Your task to perform on an android device: Go to battery settings Image 0: 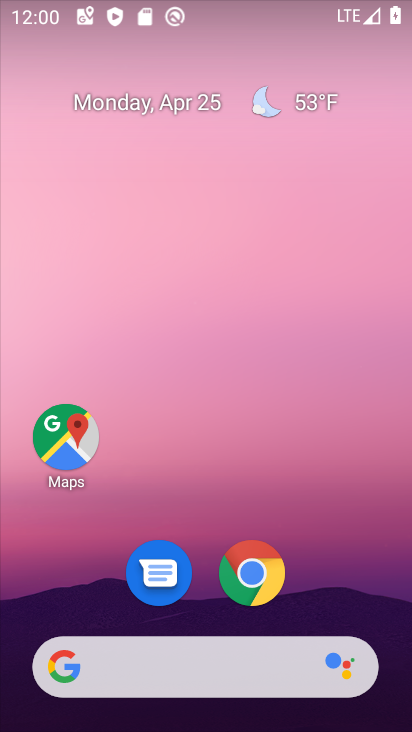
Step 0: drag from (339, 555) to (293, 5)
Your task to perform on an android device: Go to battery settings Image 1: 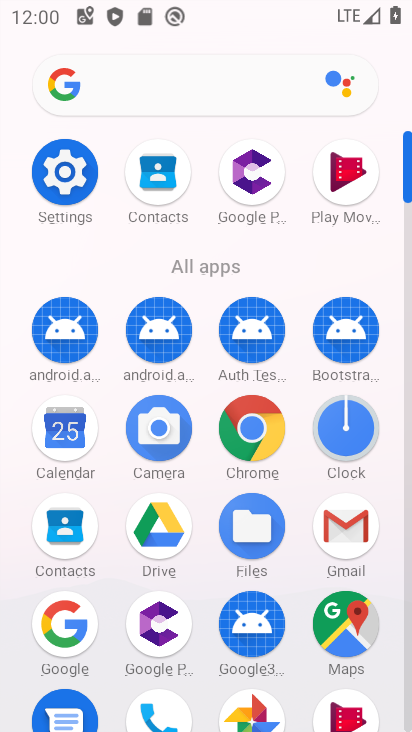
Step 1: click (49, 245)
Your task to perform on an android device: Go to battery settings Image 2: 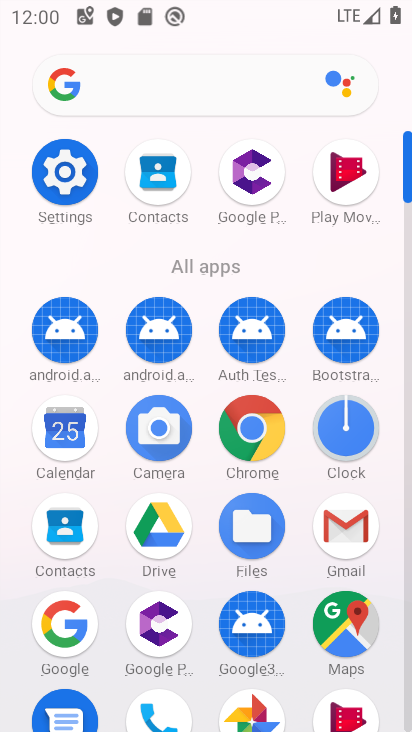
Step 2: click (50, 202)
Your task to perform on an android device: Go to battery settings Image 3: 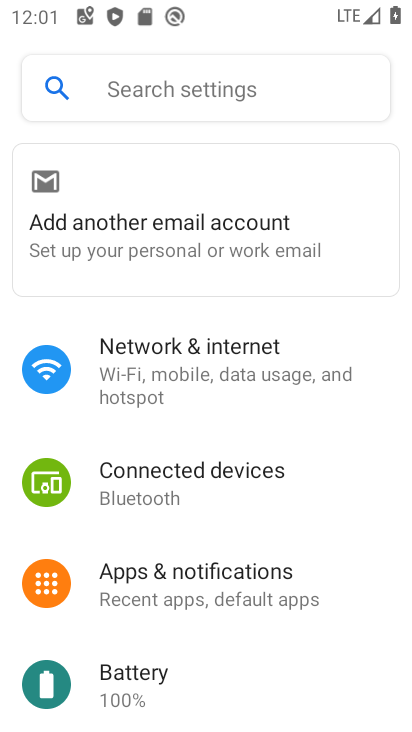
Step 3: drag from (193, 647) to (156, 24)
Your task to perform on an android device: Go to battery settings Image 4: 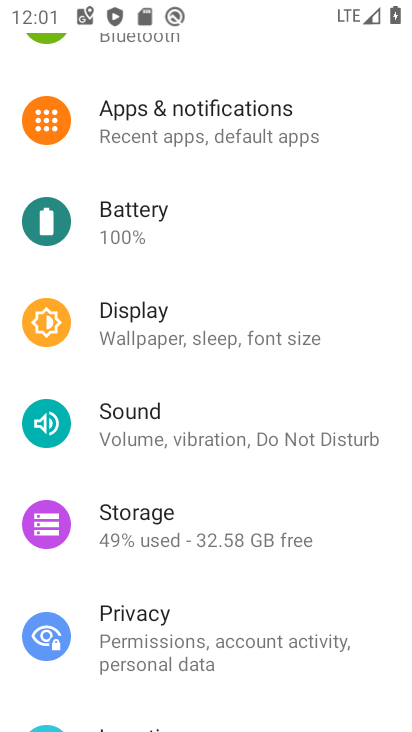
Step 4: click (115, 208)
Your task to perform on an android device: Go to battery settings Image 5: 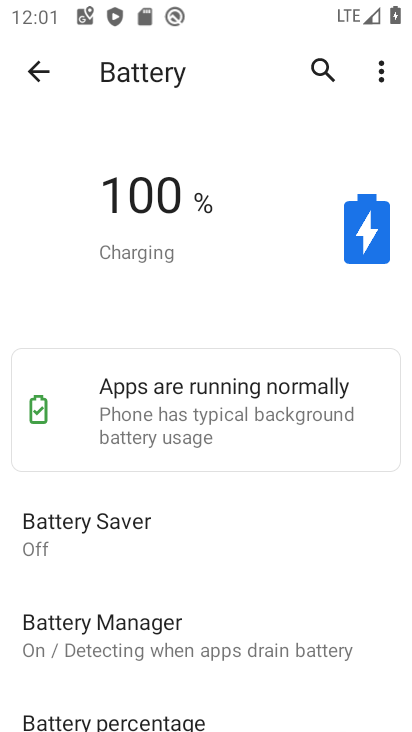
Step 5: task complete